Your task to perform on an android device: Go to Yahoo.com Image 0: 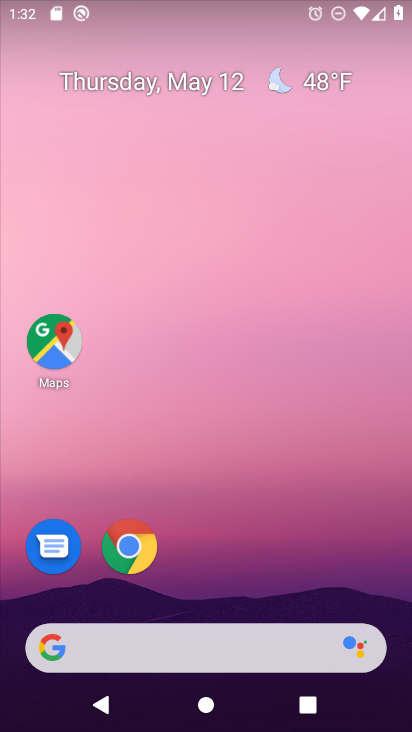
Step 0: drag from (248, 645) to (284, 188)
Your task to perform on an android device: Go to Yahoo.com Image 1: 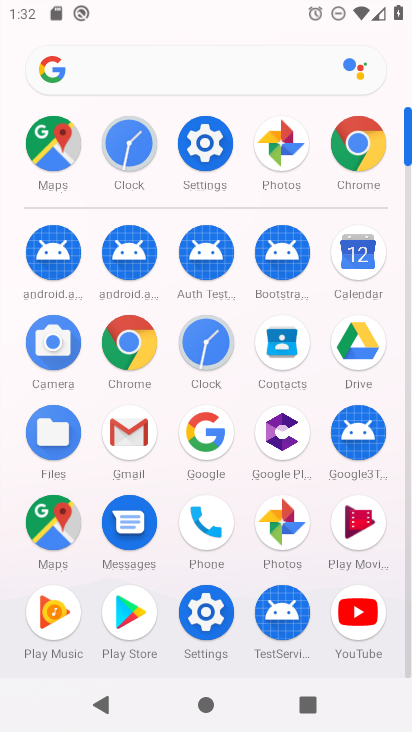
Step 1: click (355, 156)
Your task to perform on an android device: Go to Yahoo.com Image 2: 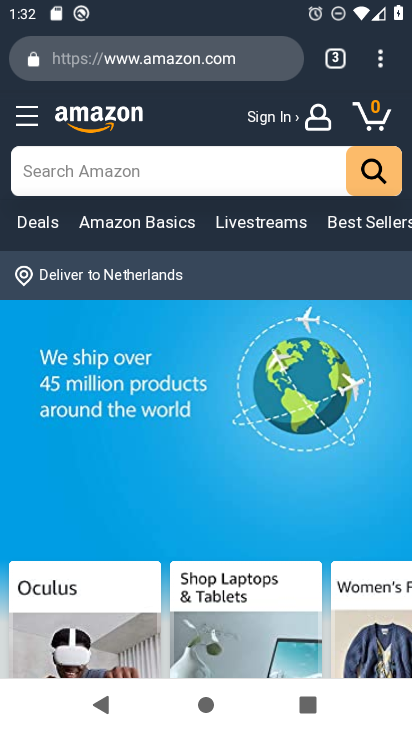
Step 2: drag from (380, 70) to (310, 124)
Your task to perform on an android device: Go to Yahoo.com Image 3: 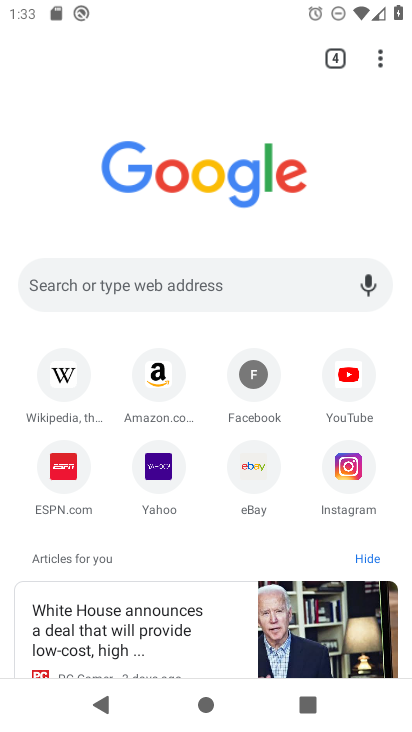
Step 3: click (159, 475)
Your task to perform on an android device: Go to Yahoo.com Image 4: 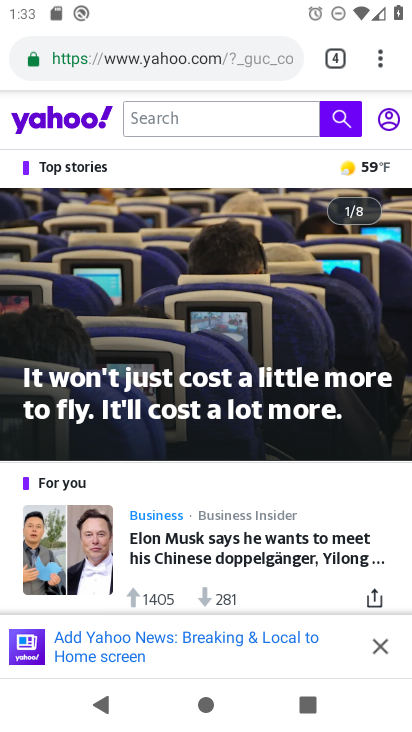
Step 4: task complete